Your task to perform on an android device: Is it going to rain today? Image 0: 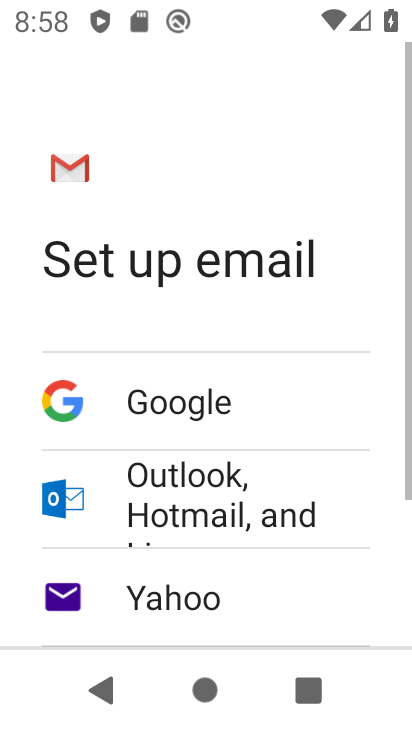
Step 0: press back button
Your task to perform on an android device: Is it going to rain today? Image 1: 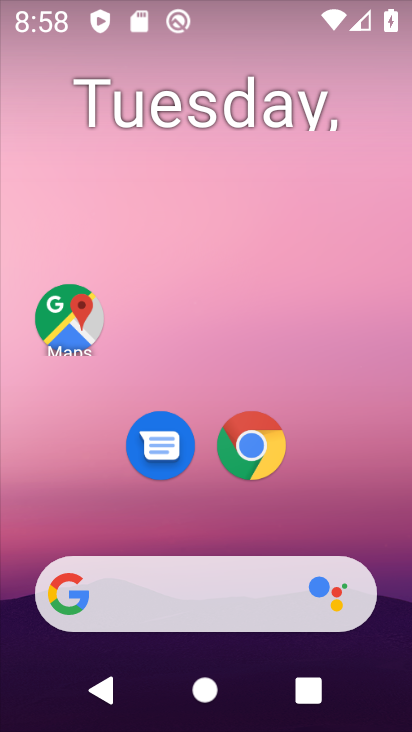
Step 1: drag from (188, 515) to (280, 26)
Your task to perform on an android device: Is it going to rain today? Image 2: 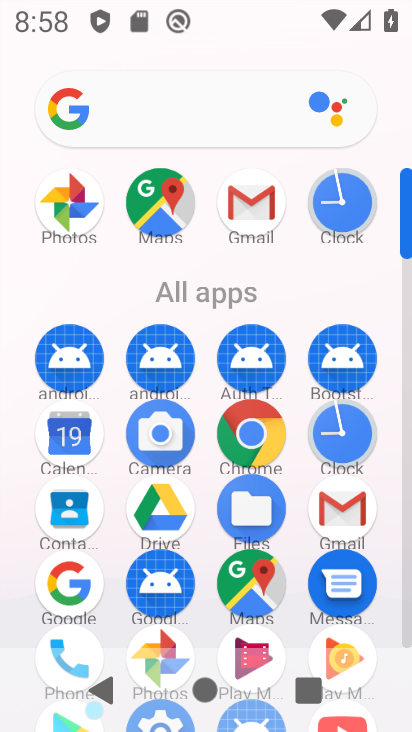
Step 2: press back button
Your task to perform on an android device: Is it going to rain today? Image 3: 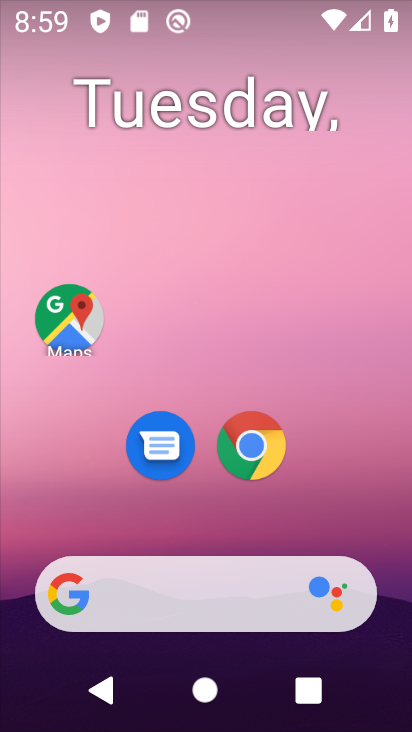
Step 3: click (152, 585)
Your task to perform on an android device: Is it going to rain today? Image 4: 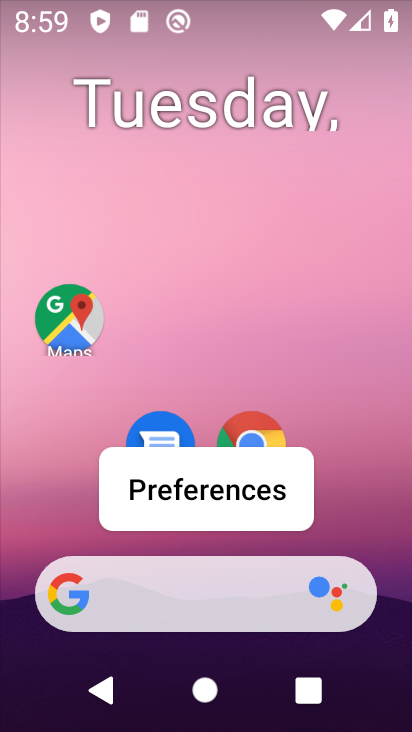
Step 4: click (154, 559)
Your task to perform on an android device: Is it going to rain today? Image 5: 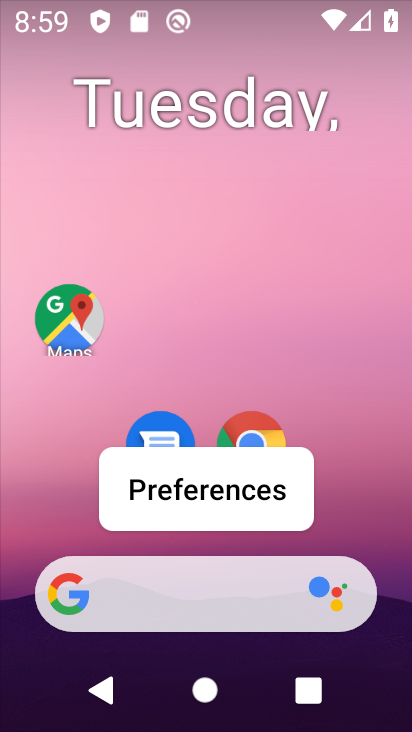
Step 5: click (176, 589)
Your task to perform on an android device: Is it going to rain today? Image 6: 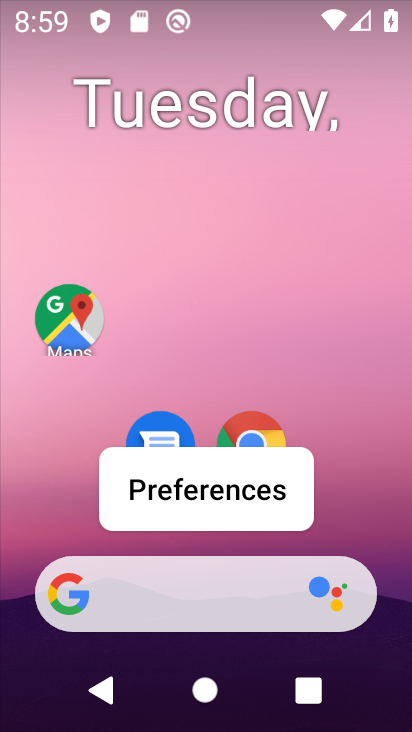
Step 6: click (173, 592)
Your task to perform on an android device: Is it going to rain today? Image 7: 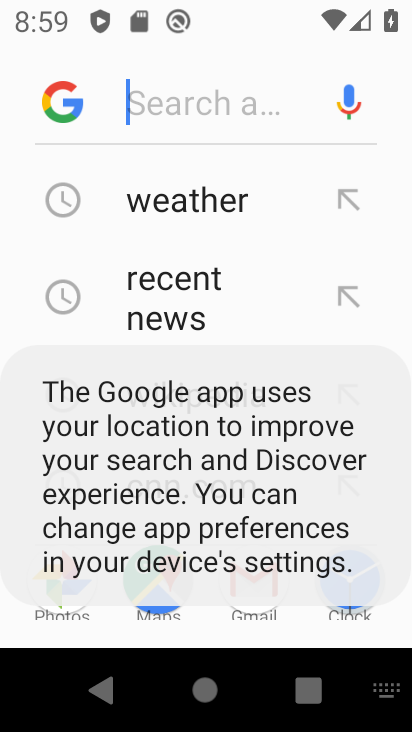
Step 7: click (186, 194)
Your task to perform on an android device: Is it going to rain today? Image 8: 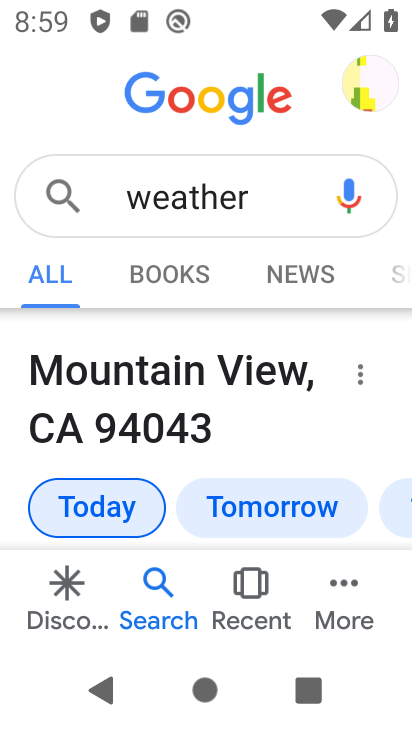
Step 8: task complete